Your task to perform on an android device: Do I have any events today? Image 0: 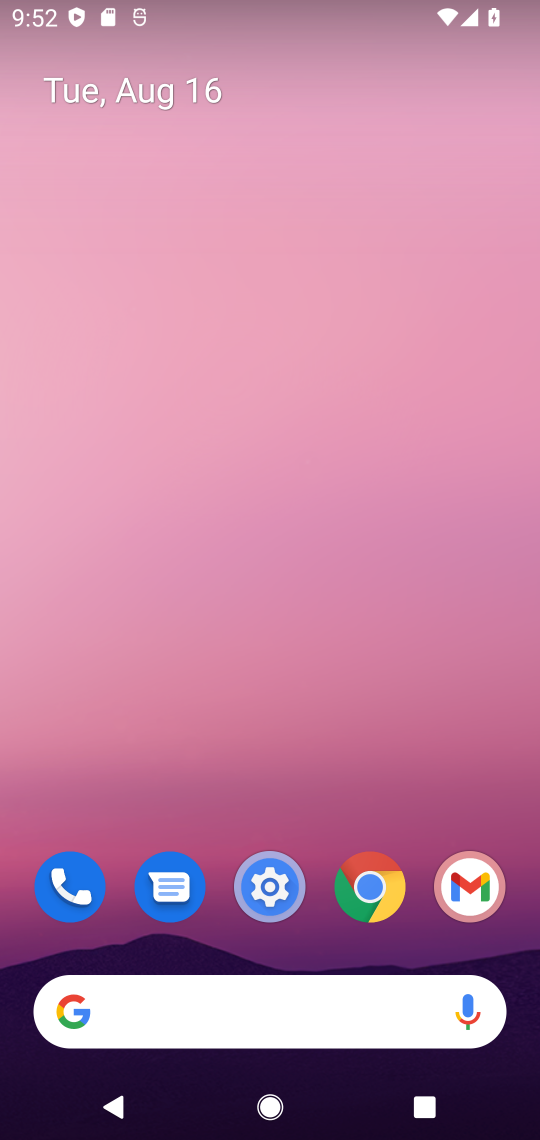
Step 0: press home button
Your task to perform on an android device: Do I have any events today? Image 1: 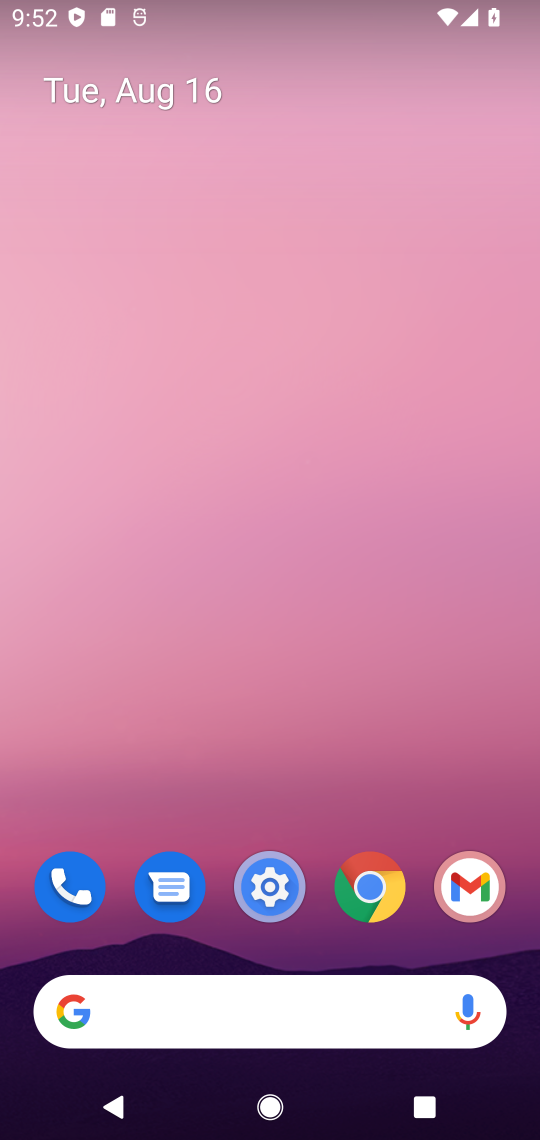
Step 1: drag from (420, 830) to (377, 111)
Your task to perform on an android device: Do I have any events today? Image 2: 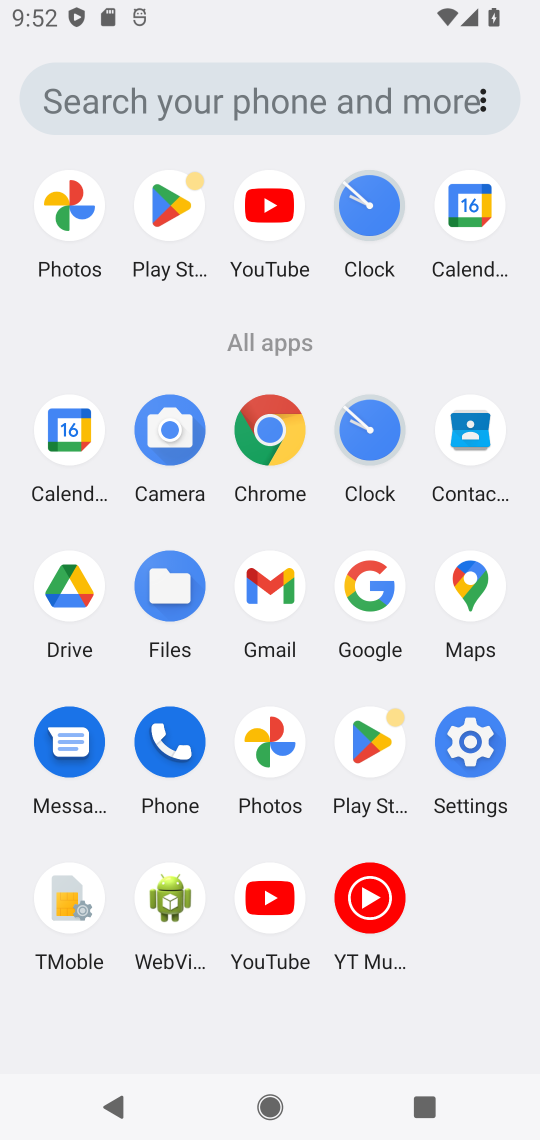
Step 2: click (70, 419)
Your task to perform on an android device: Do I have any events today? Image 3: 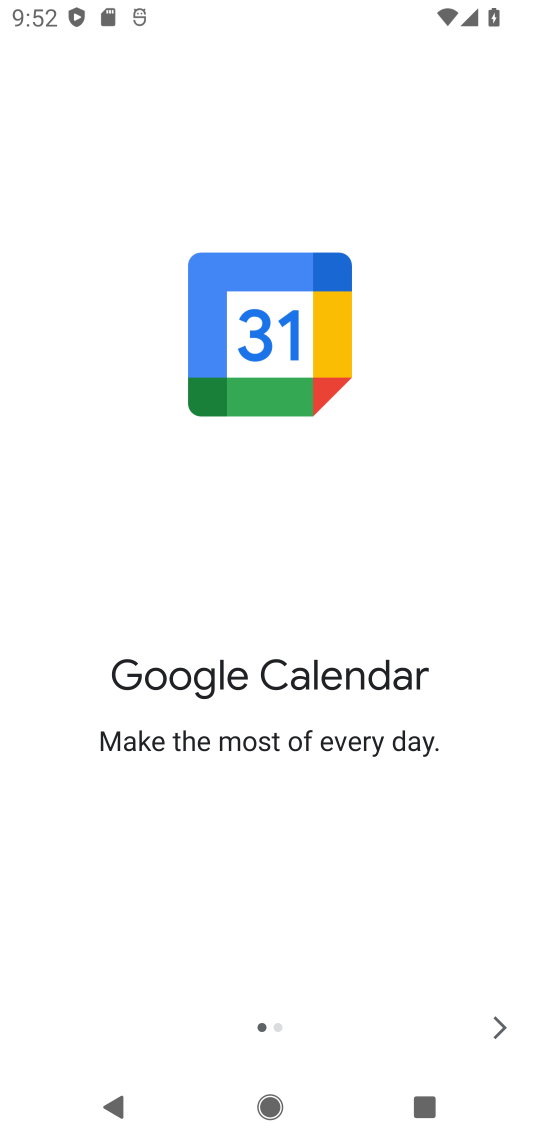
Step 3: click (502, 1020)
Your task to perform on an android device: Do I have any events today? Image 4: 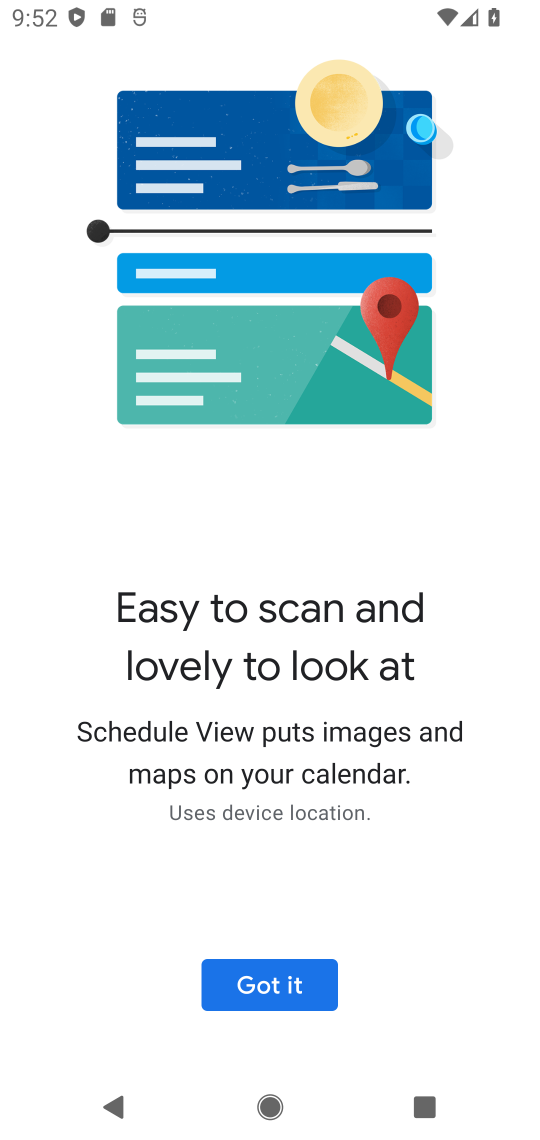
Step 4: click (292, 980)
Your task to perform on an android device: Do I have any events today? Image 5: 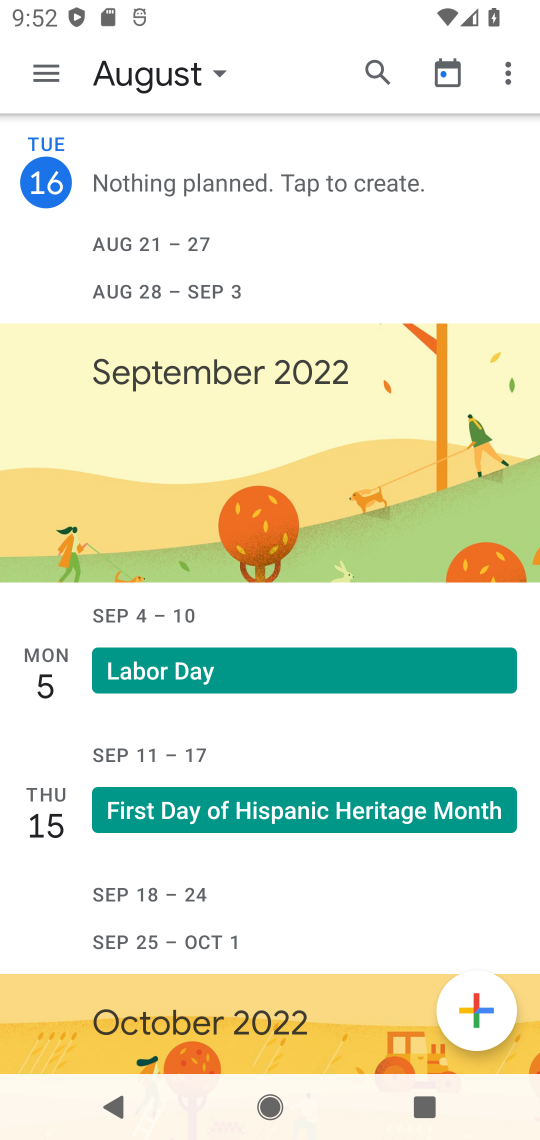
Step 5: task complete